Your task to perform on an android device: toggle airplane mode Image 0: 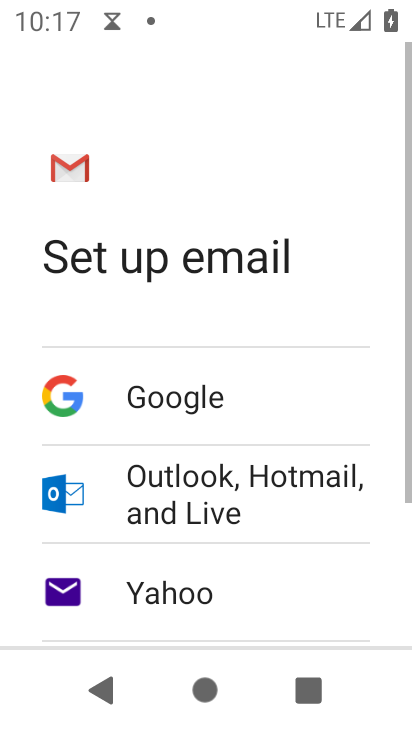
Step 0: press home button
Your task to perform on an android device: toggle airplane mode Image 1: 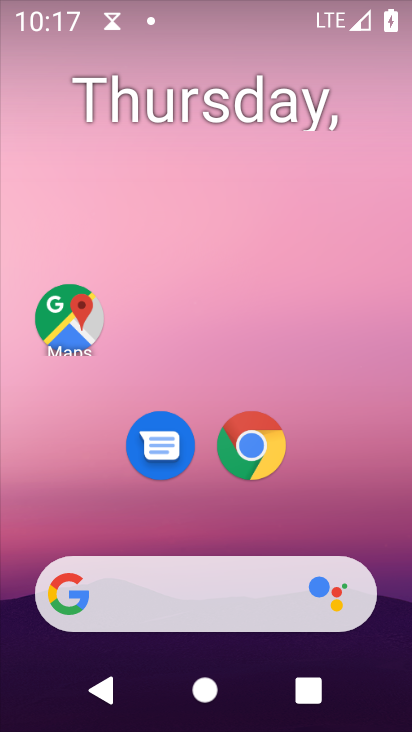
Step 1: drag from (374, 515) to (298, 43)
Your task to perform on an android device: toggle airplane mode Image 2: 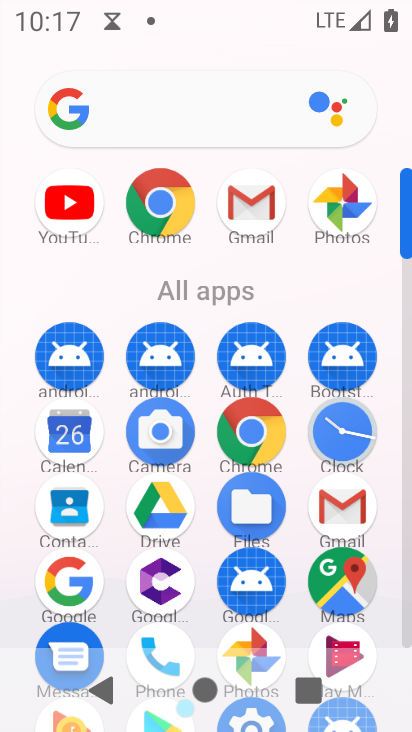
Step 2: click (411, 632)
Your task to perform on an android device: toggle airplane mode Image 3: 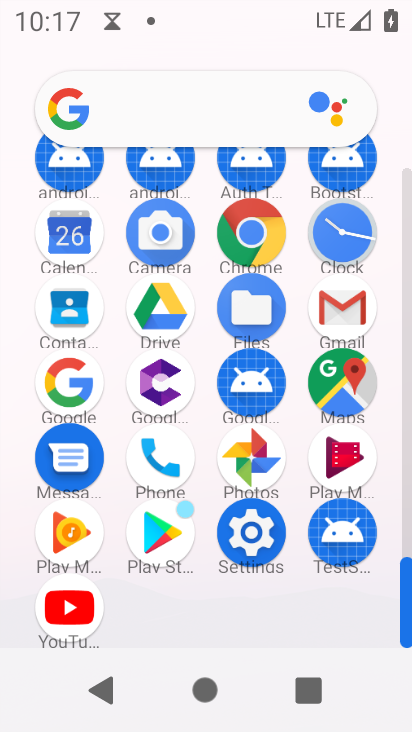
Step 3: click (255, 547)
Your task to perform on an android device: toggle airplane mode Image 4: 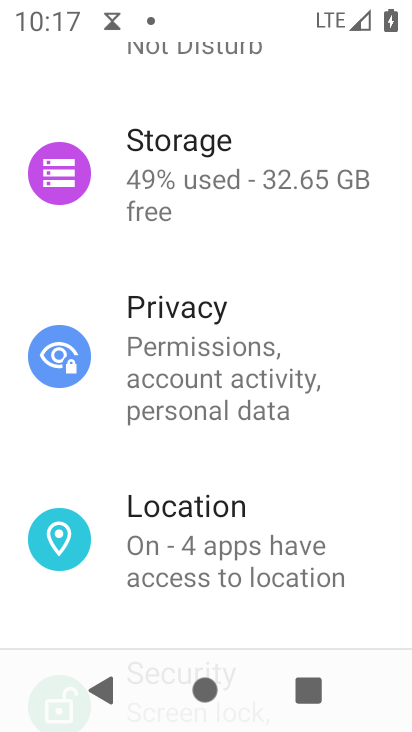
Step 4: drag from (324, 129) to (339, 496)
Your task to perform on an android device: toggle airplane mode Image 5: 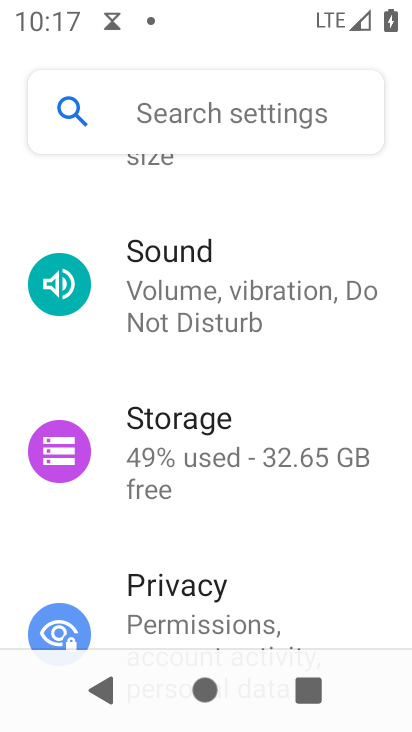
Step 5: drag from (289, 198) to (294, 589)
Your task to perform on an android device: toggle airplane mode Image 6: 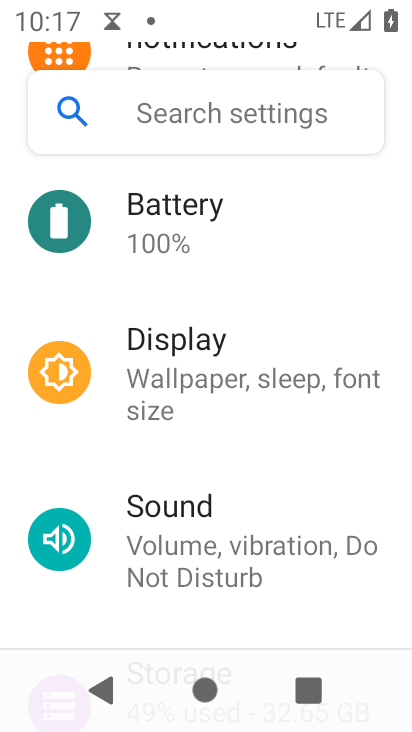
Step 6: drag from (243, 246) to (249, 621)
Your task to perform on an android device: toggle airplane mode Image 7: 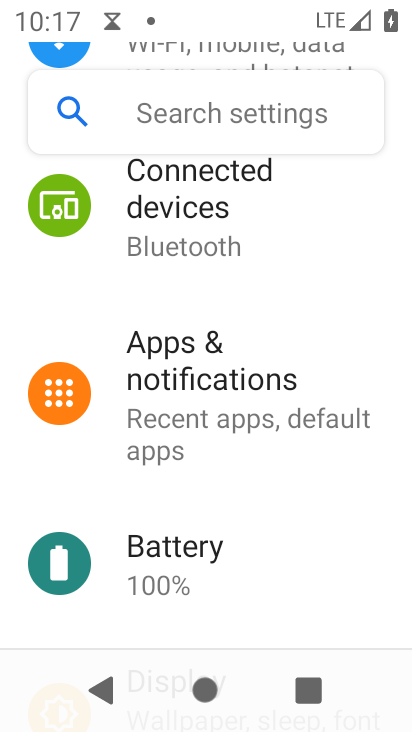
Step 7: drag from (282, 248) to (285, 606)
Your task to perform on an android device: toggle airplane mode Image 8: 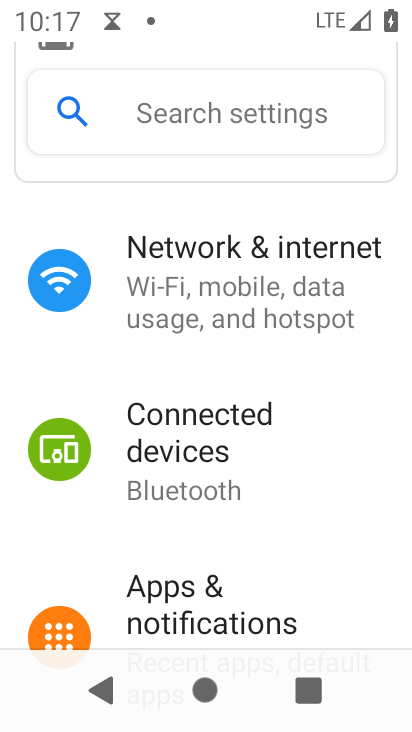
Step 8: click (276, 327)
Your task to perform on an android device: toggle airplane mode Image 9: 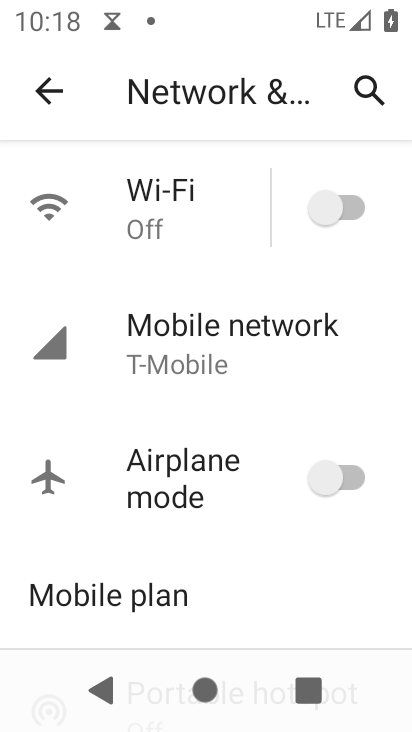
Step 9: click (343, 465)
Your task to perform on an android device: toggle airplane mode Image 10: 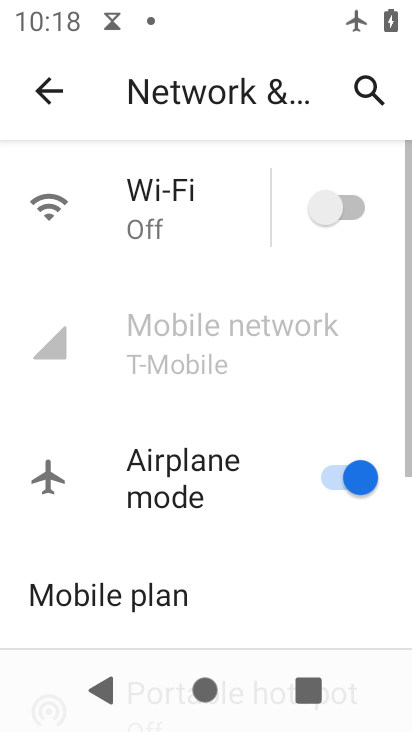
Step 10: task complete